Your task to perform on an android device: What's the weather today? Image 0: 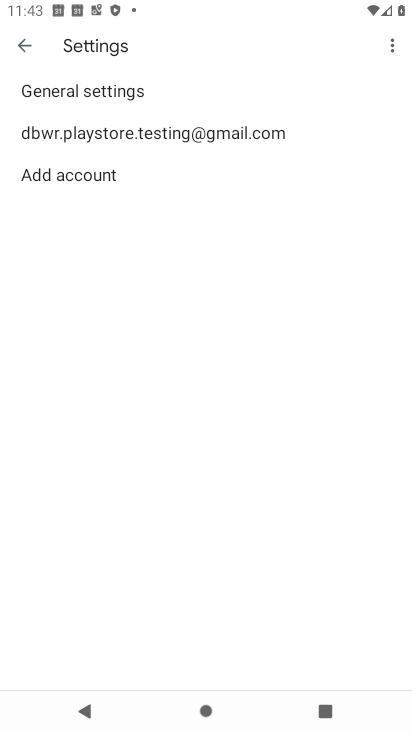
Step 0: press home button
Your task to perform on an android device: What's the weather today? Image 1: 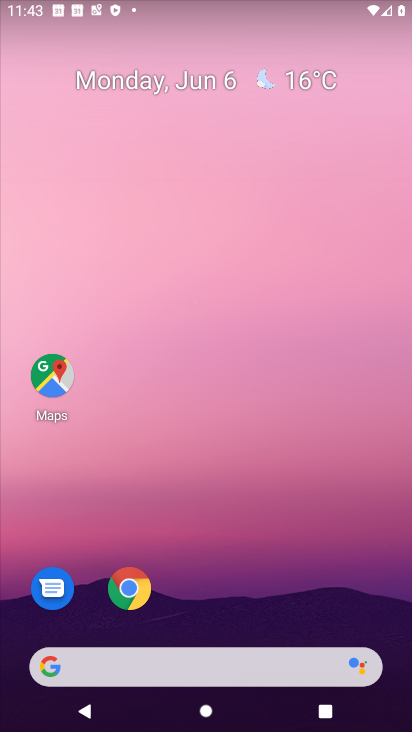
Step 1: click (189, 657)
Your task to perform on an android device: What's the weather today? Image 2: 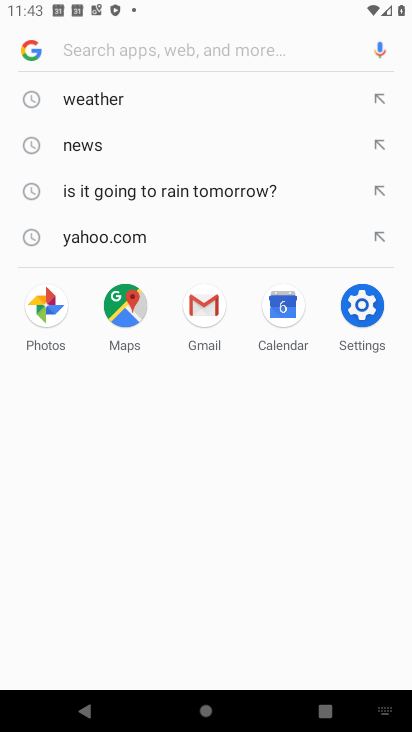
Step 2: click (110, 77)
Your task to perform on an android device: What's the weather today? Image 3: 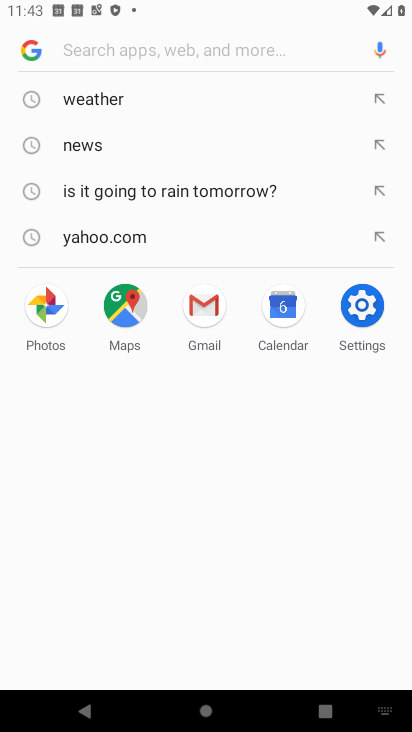
Step 3: click (99, 90)
Your task to perform on an android device: What's the weather today? Image 4: 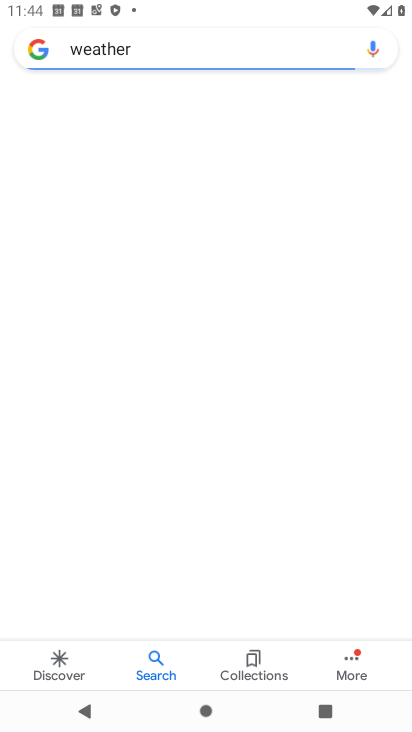
Step 4: task complete